Your task to perform on an android device: Open Google Maps and go to "Timeline" Image 0: 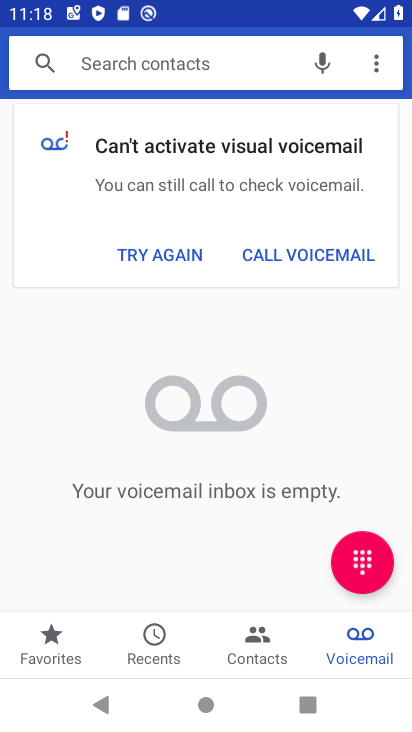
Step 0: press home button
Your task to perform on an android device: Open Google Maps and go to "Timeline" Image 1: 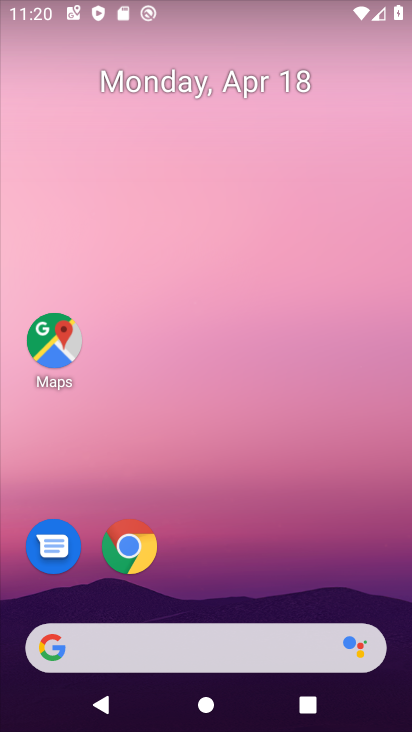
Step 1: drag from (296, 560) to (258, 45)
Your task to perform on an android device: Open Google Maps and go to "Timeline" Image 2: 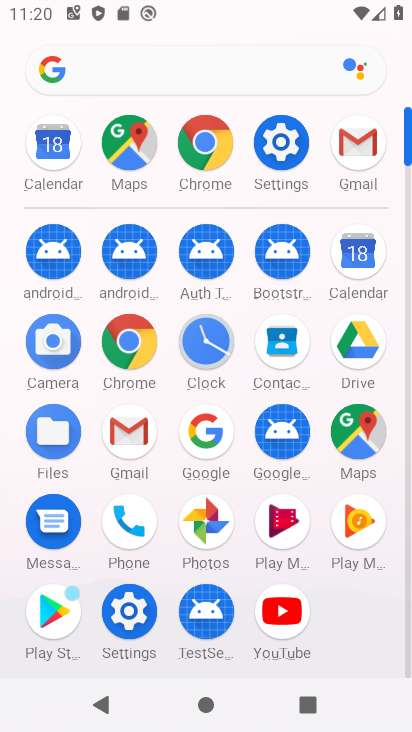
Step 2: click (360, 445)
Your task to perform on an android device: Open Google Maps and go to "Timeline" Image 3: 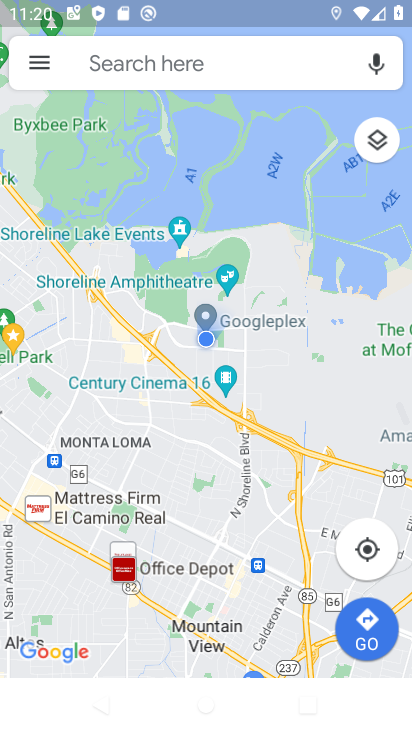
Step 3: click (30, 61)
Your task to perform on an android device: Open Google Maps and go to "Timeline" Image 4: 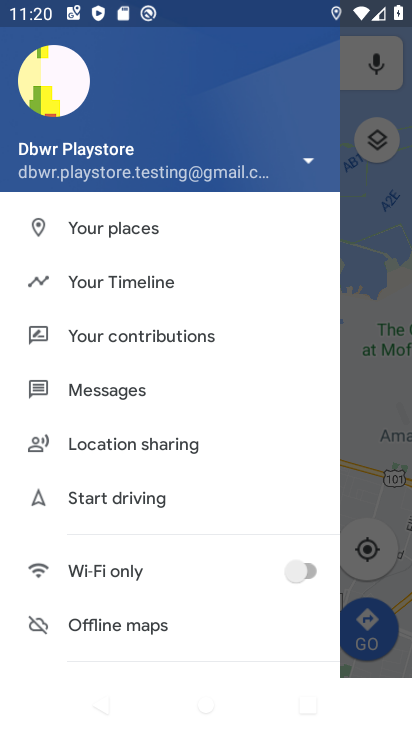
Step 4: click (176, 294)
Your task to perform on an android device: Open Google Maps and go to "Timeline" Image 5: 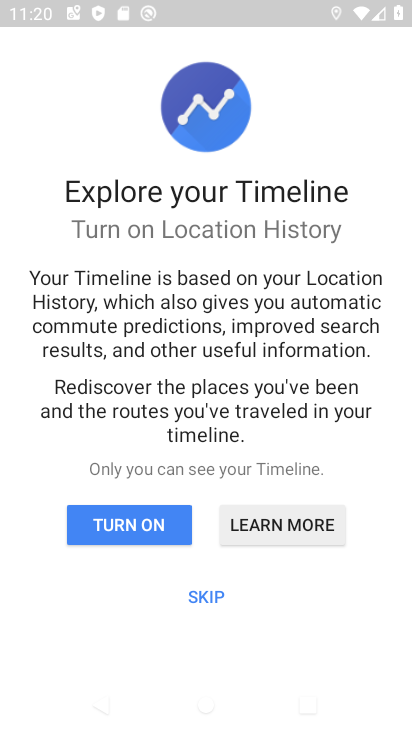
Step 5: click (208, 608)
Your task to perform on an android device: Open Google Maps and go to "Timeline" Image 6: 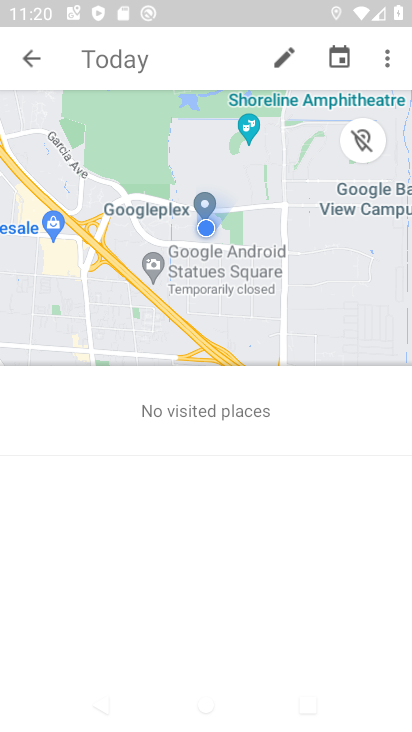
Step 6: task complete